Your task to perform on an android device: install app "Paramount+ | Peak Streaming" Image 0: 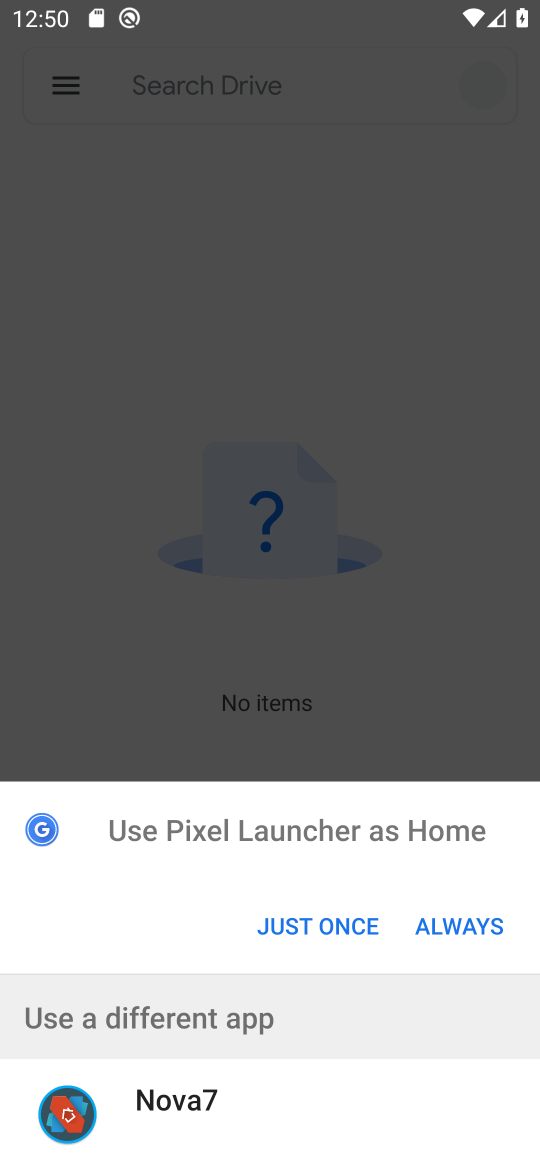
Step 0: click (321, 936)
Your task to perform on an android device: install app "Paramount+ | Peak Streaming" Image 1: 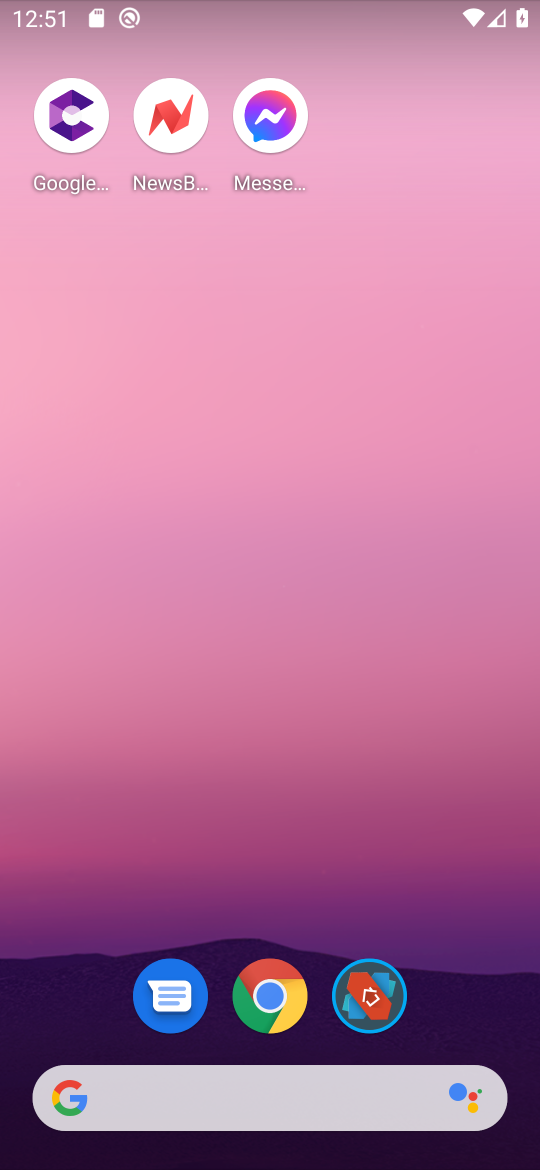
Step 1: drag from (263, 942) to (366, 222)
Your task to perform on an android device: install app "Paramount+ | Peak Streaming" Image 2: 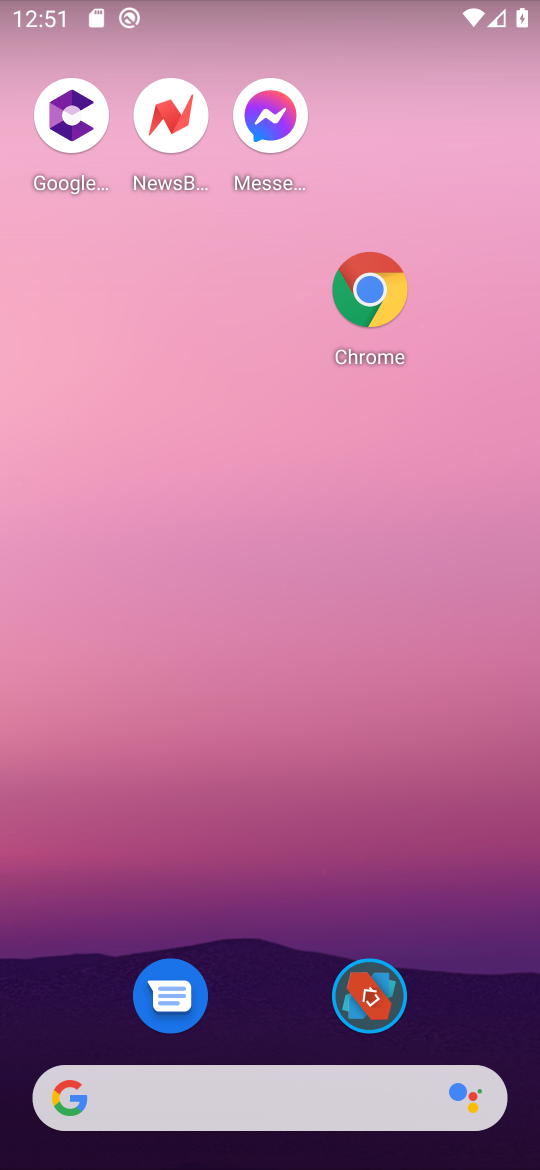
Step 2: drag from (224, 1037) to (309, 115)
Your task to perform on an android device: install app "Paramount+ | Peak Streaming" Image 3: 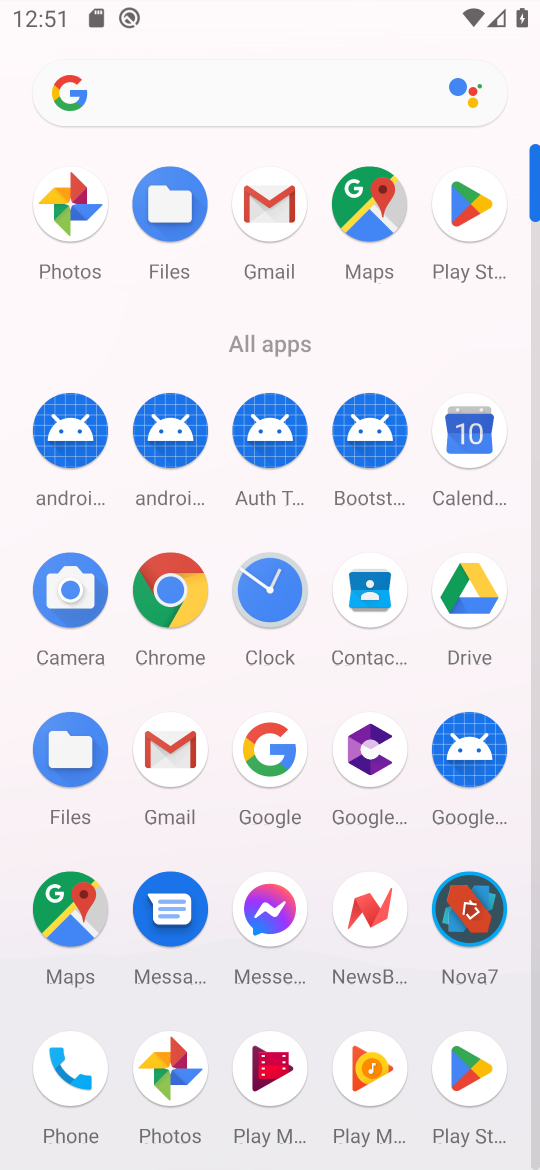
Step 3: click (454, 237)
Your task to perform on an android device: install app "Paramount+ | Peak Streaming" Image 4: 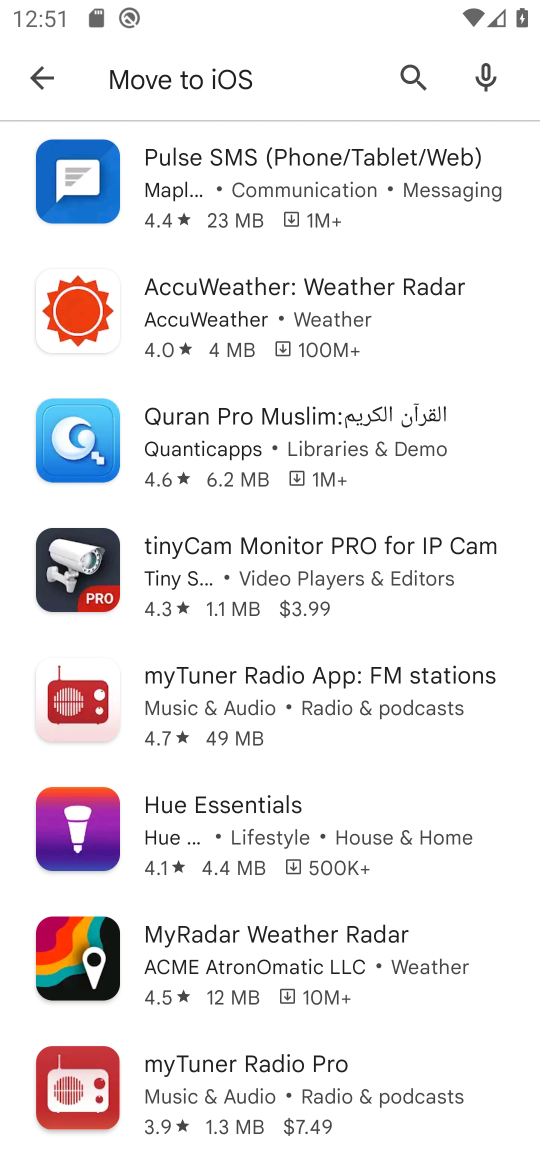
Step 4: click (43, 68)
Your task to perform on an android device: install app "Paramount+ | Peak Streaming" Image 5: 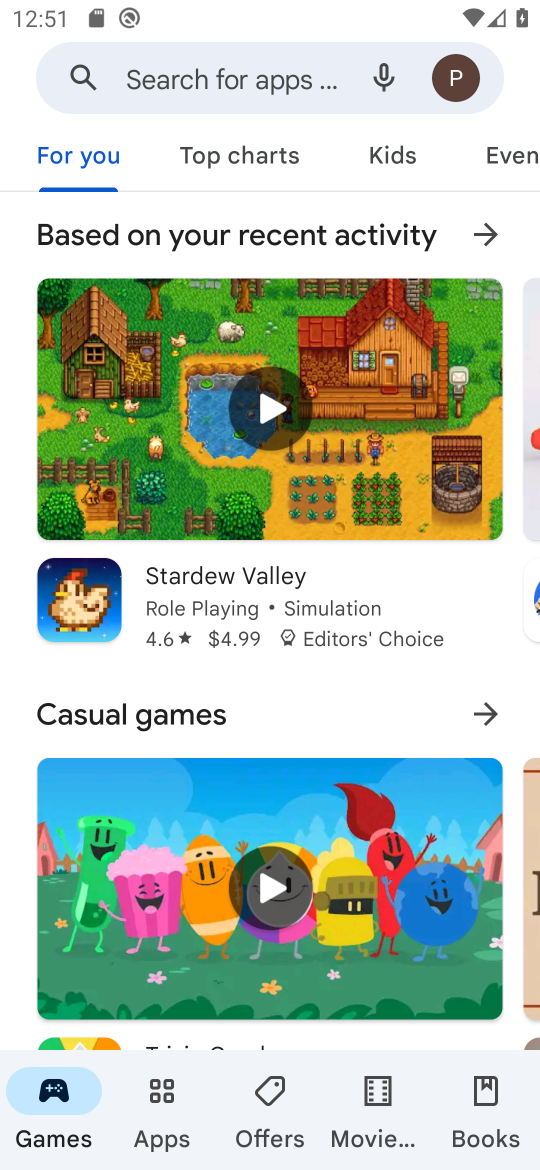
Step 5: click (160, 77)
Your task to perform on an android device: install app "Paramount+ | Peak Streaming" Image 6: 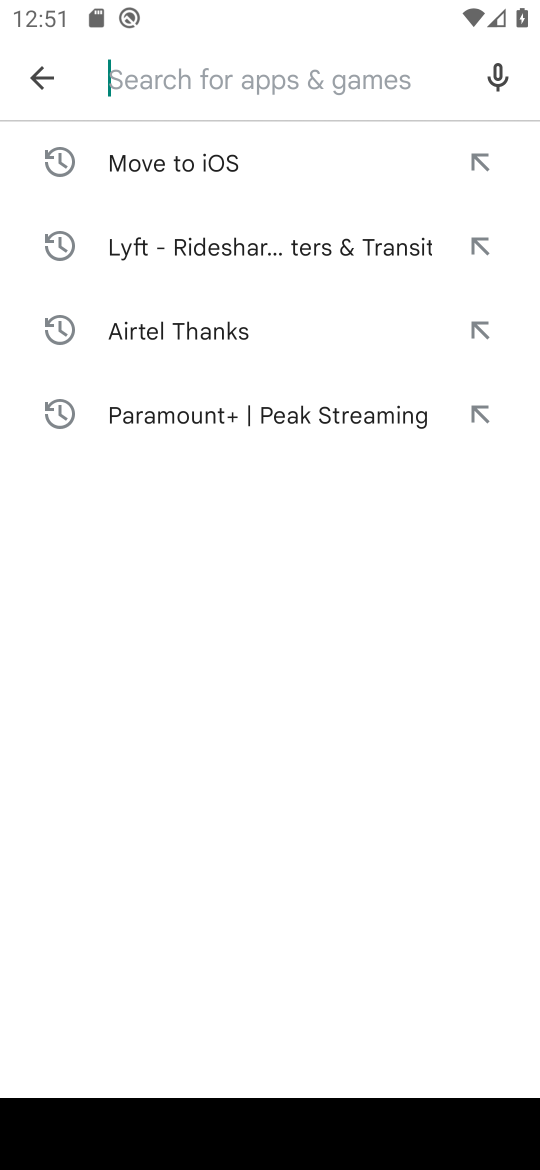
Step 6: type "Paramount+ | Peak Streaming"
Your task to perform on an android device: install app "Paramount+ | Peak Streaming" Image 7: 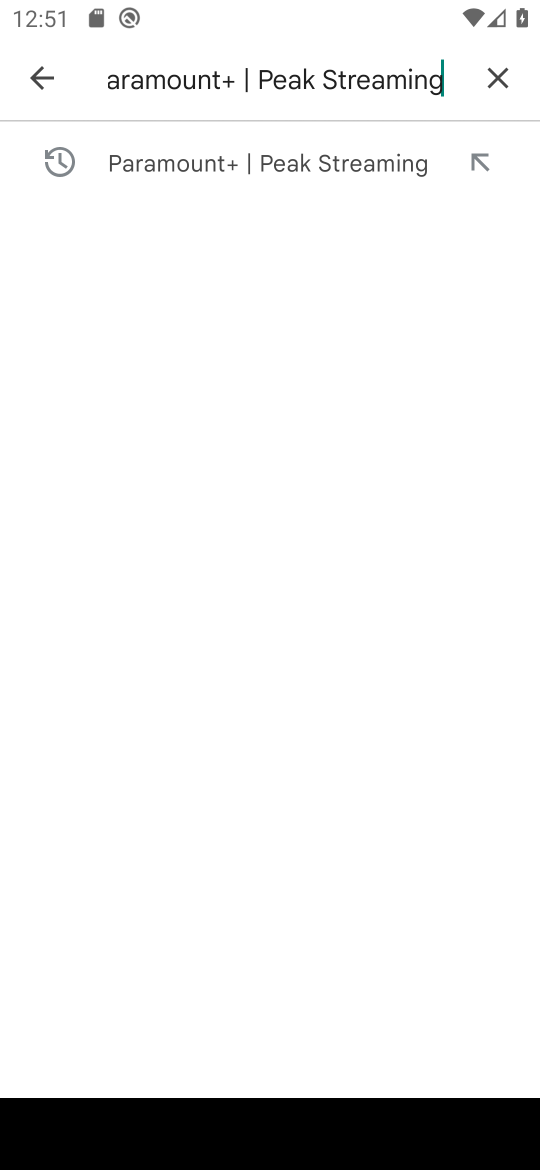
Step 7: click (300, 165)
Your task to perform on an android device: install app "Paramount+ | Peak Streaming" Image 8: 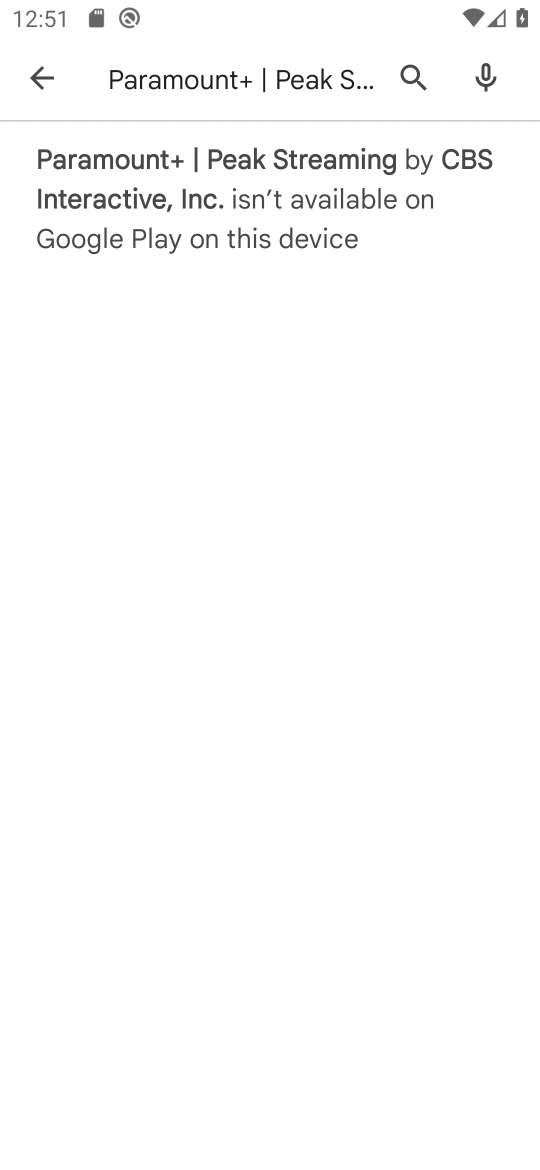
Step 8: click (300, 165)
Your task to perform on an android device: install app "Paramount+ | Peak Streaming" Image 9: 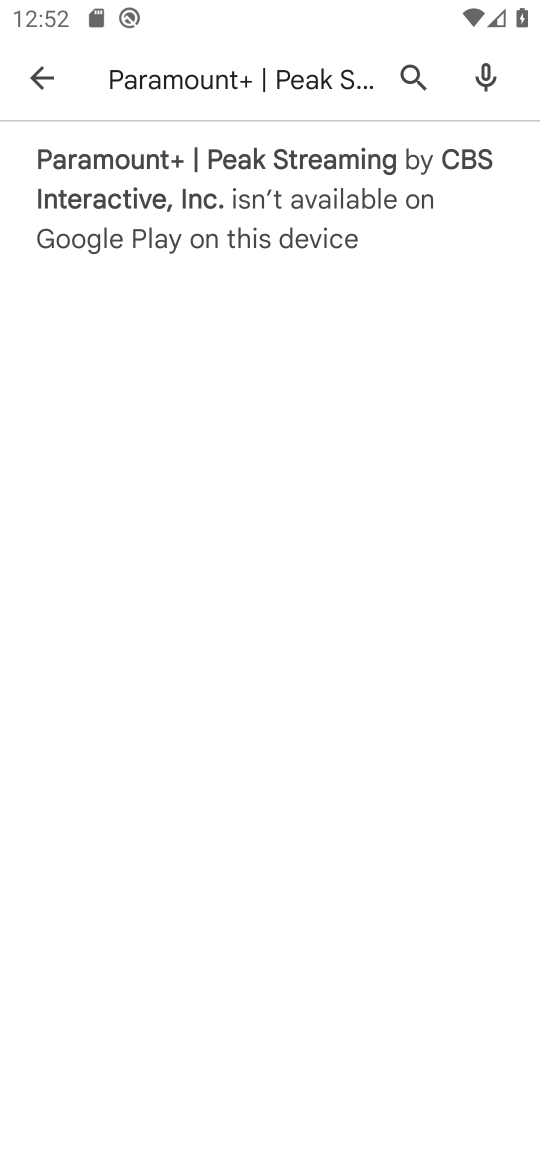
Step 9: click (293, 182)
Your task to perform on an android device: install app "Paramount+ | Peak Streaming" Image 10: 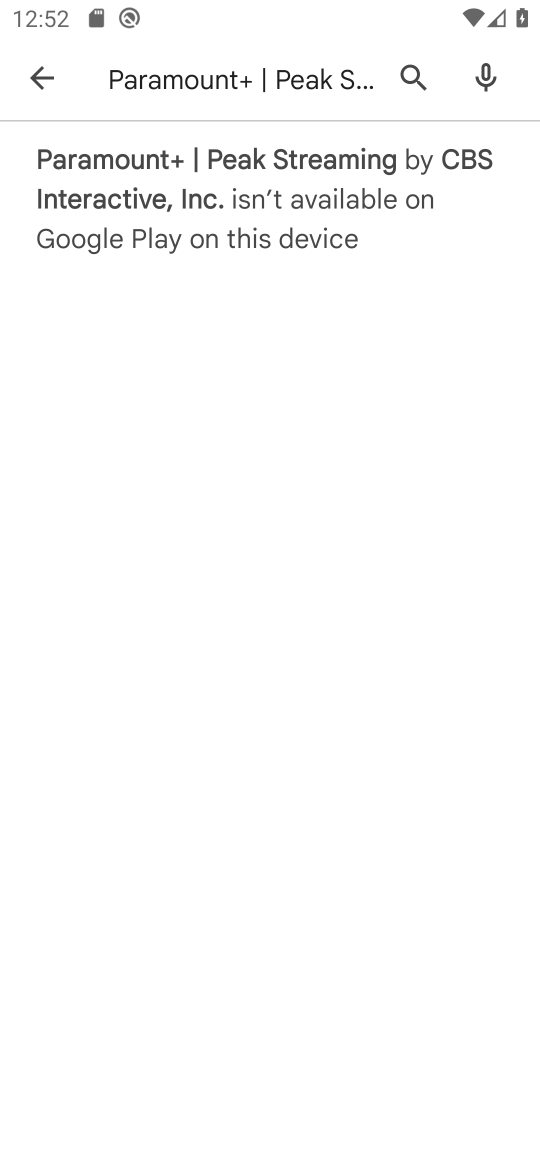
Step 10: click (293, 182)
Your task to perform on an android device: install app "Paramount+ | Peak Streaming" Image 11: 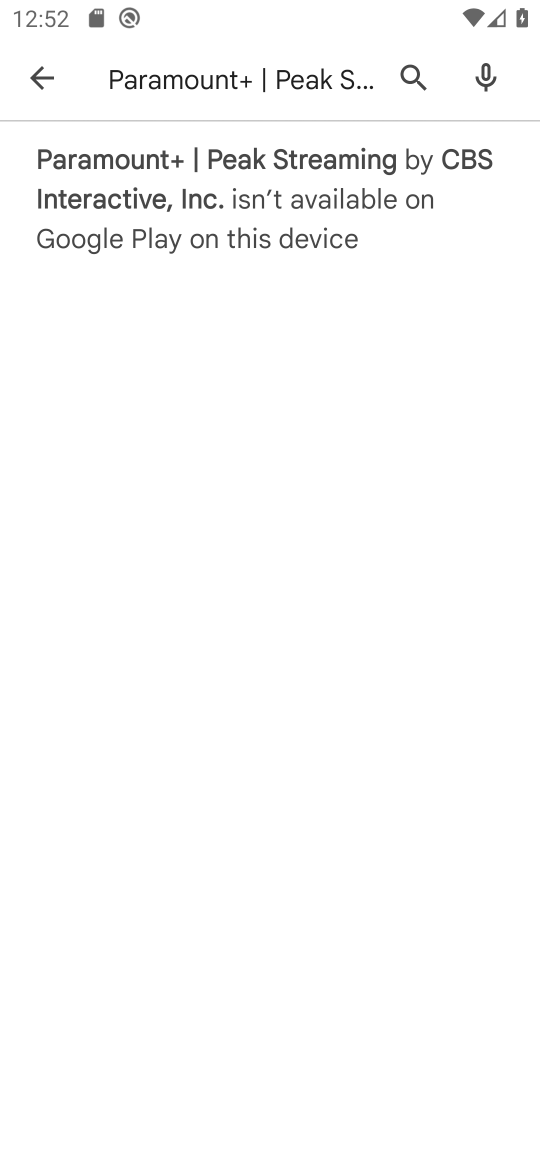
Step 11: click (260, 165)
Your task to perform on an android device: install app "Paramount+ | Peak Streaming" Image 12: 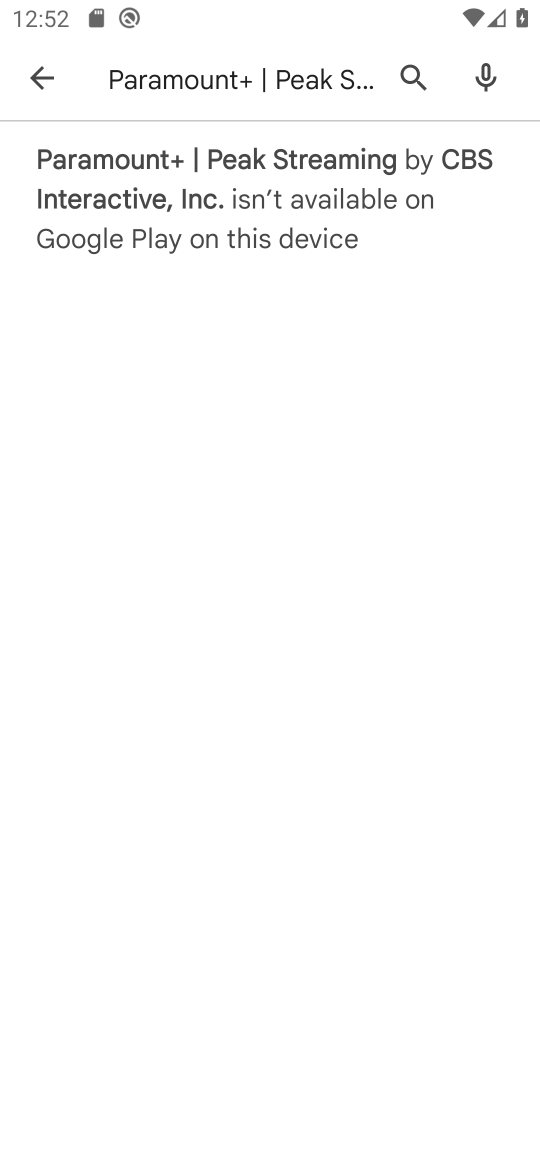
Step 12: task complete